Your task to perform on an android device: check battery use Image 0: 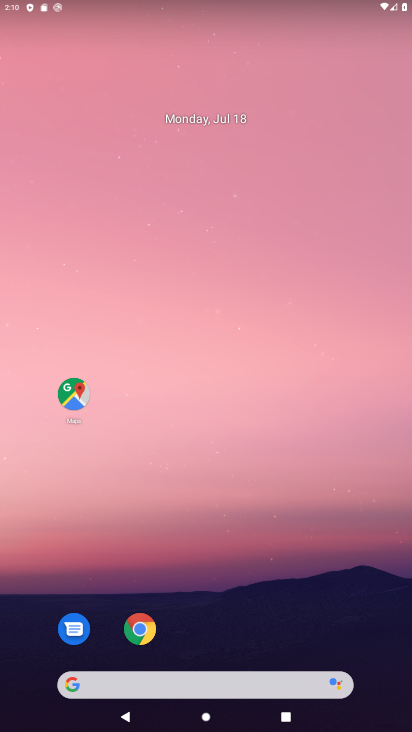
Step 0: drag from (179, 632) to (184, 325)
Your task to perform on an android device: check battery use Image 1: 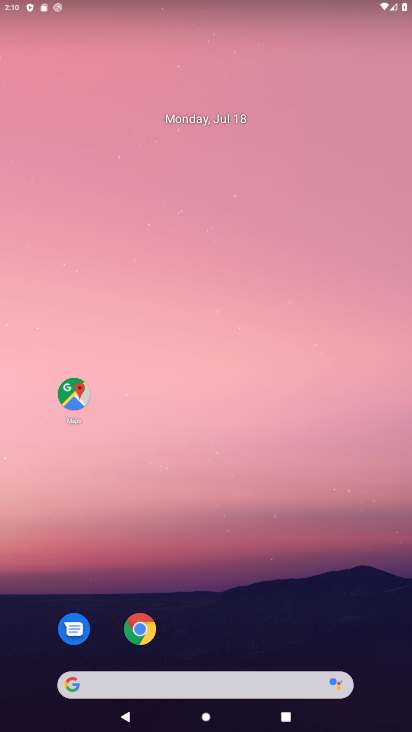
Step 1: drag from (212, 629) to (264, 135)
Your task to perform on an android device: check battery use Image 2: 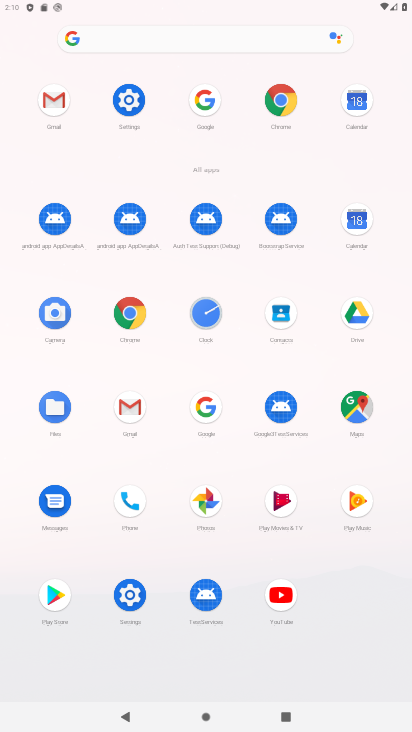
Step 2: click (125, 119)
Your task to perform on an android device: check battery use Image 3: 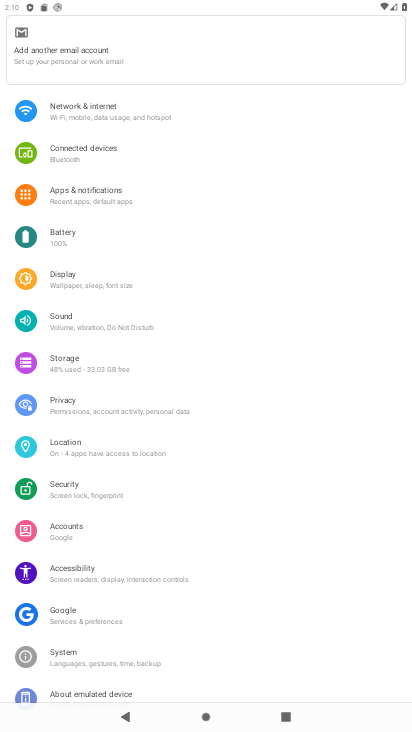
Step 3: click (105, 248)
Your task to perform on an android device: check battery use Image 4: 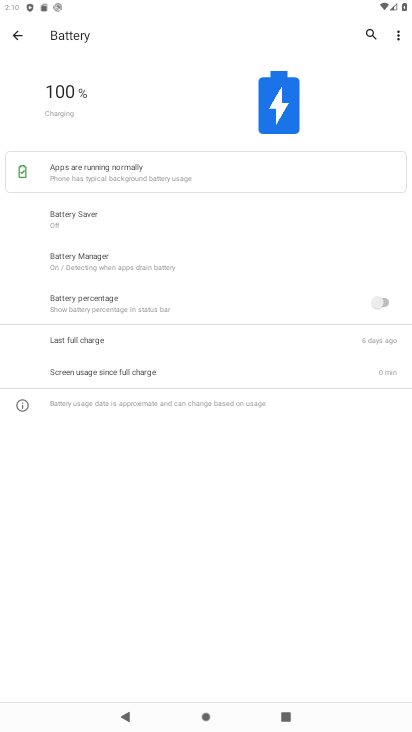
Step 4: click (396, 38)
Your task to perform on an android device: check battery use Image 5: 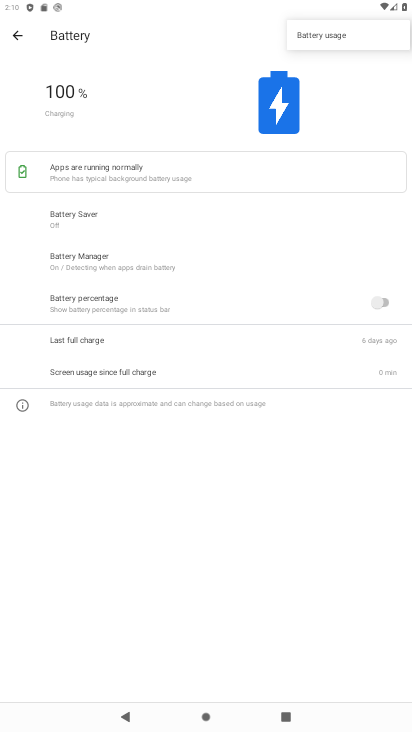
Step 5: click (313, 38)
Your task to perform on an android device: check battery use Image 6: 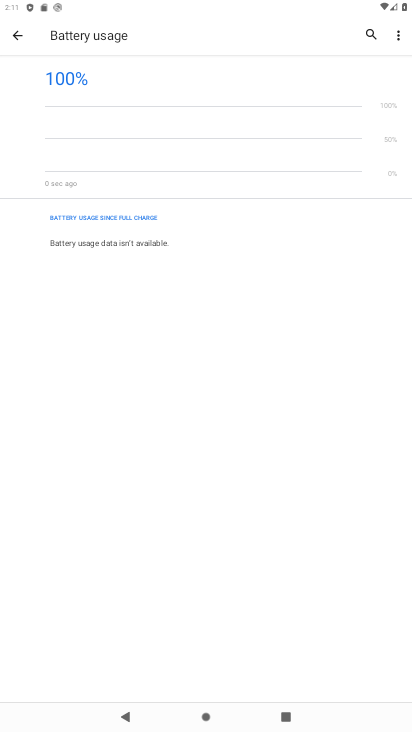
Step 6: task complete